Your task to perform on an android device: Open wifi settings Image 0: 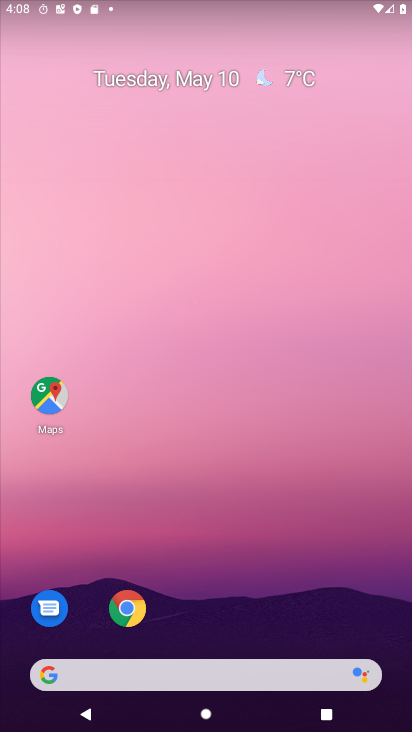
Step 0: drag from (324, 604) to (276, 5)
Your task to perform on an android device: Open wifi settings Image 1: 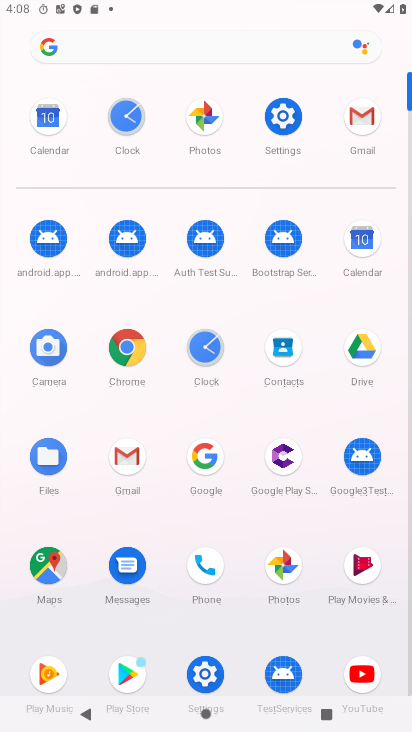
Step 1: click (286, 123)
Your task to perform on an android device: Open wifi settings Image 2: 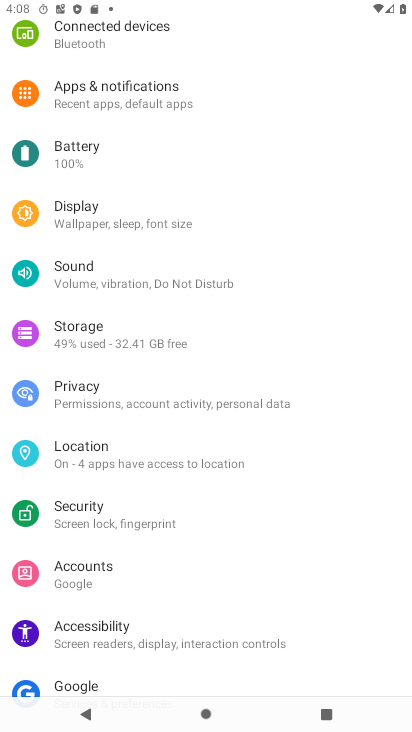
Step 2: drag from (285, 116) to (287, 397)
Your task to perform on an android device: Open wifi settings Image 3: 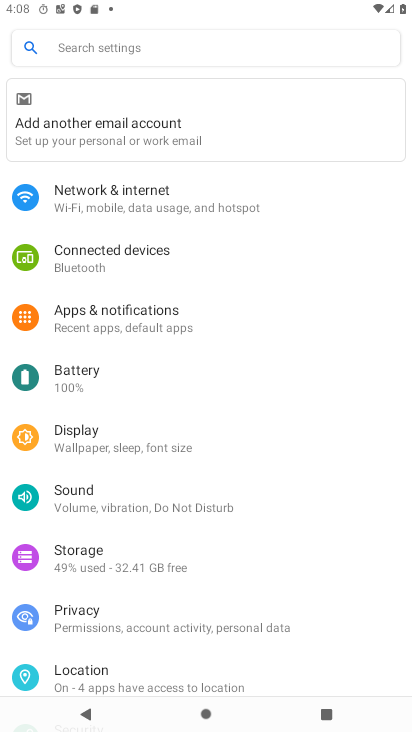
Step 3: click (119, 195)
Your task to perform on an android device: Open wifi settings Image 4: 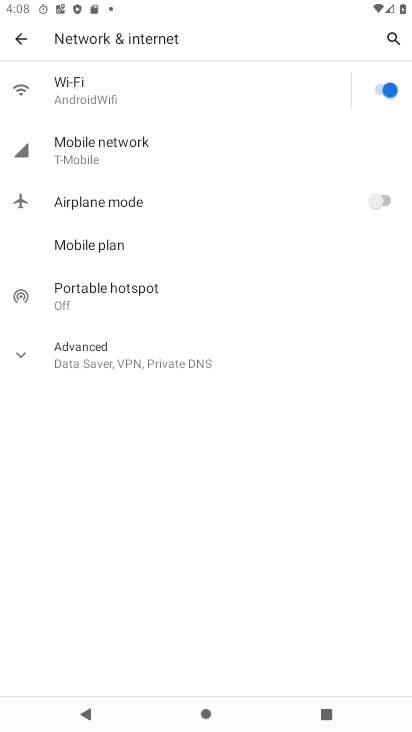
Step 4: click (73, 100)
Your task to perform on an android device: Open wifi settings Image 5: 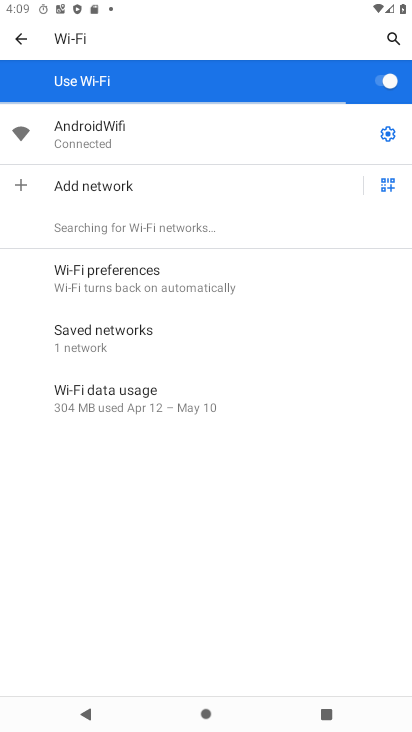
Step 5: task complete